Your task to perform on an android device: snooze an email in the gmail app Image 0: 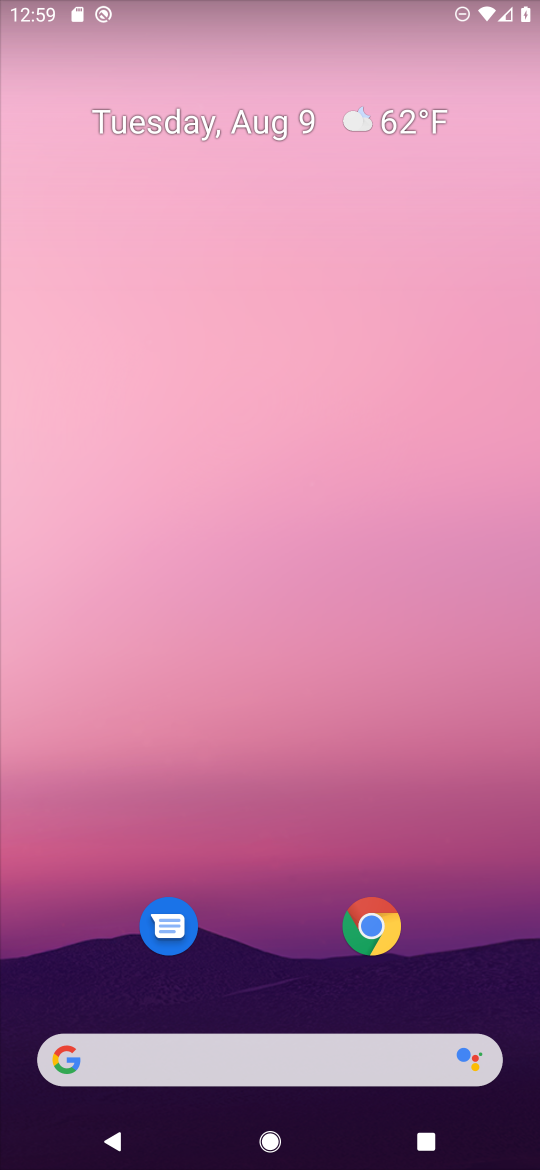
Step 0: drag from (42, 701) to (316, 299)
Your task to perform on an android device: snooze an email in the gmail app Image 1: 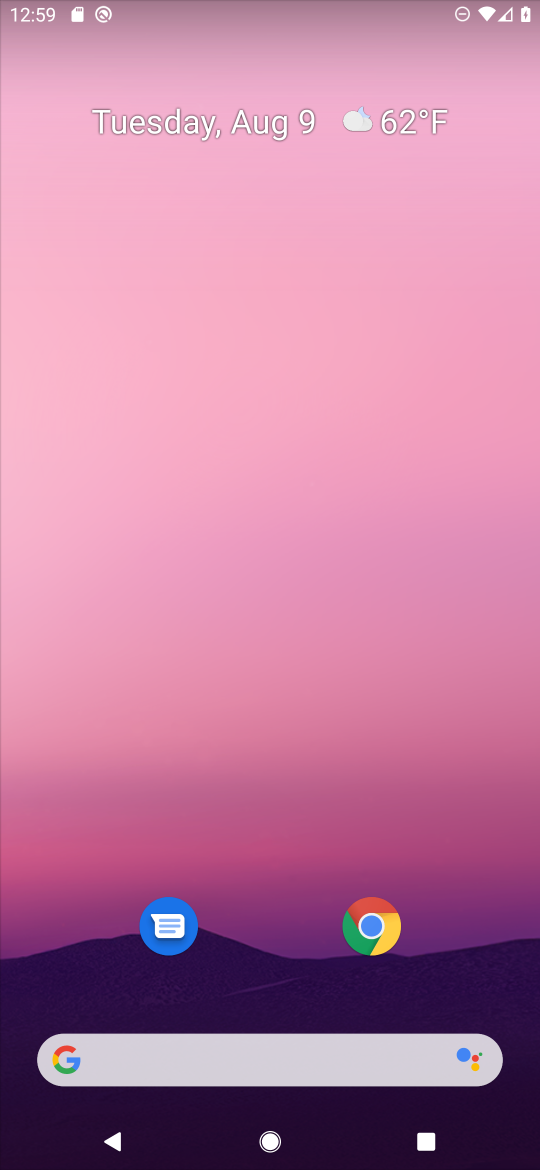
Step 1: drag from (115, 791) to (373, 257)
Your task to perform on an android device: snooze an email in the gmail app Image 2: 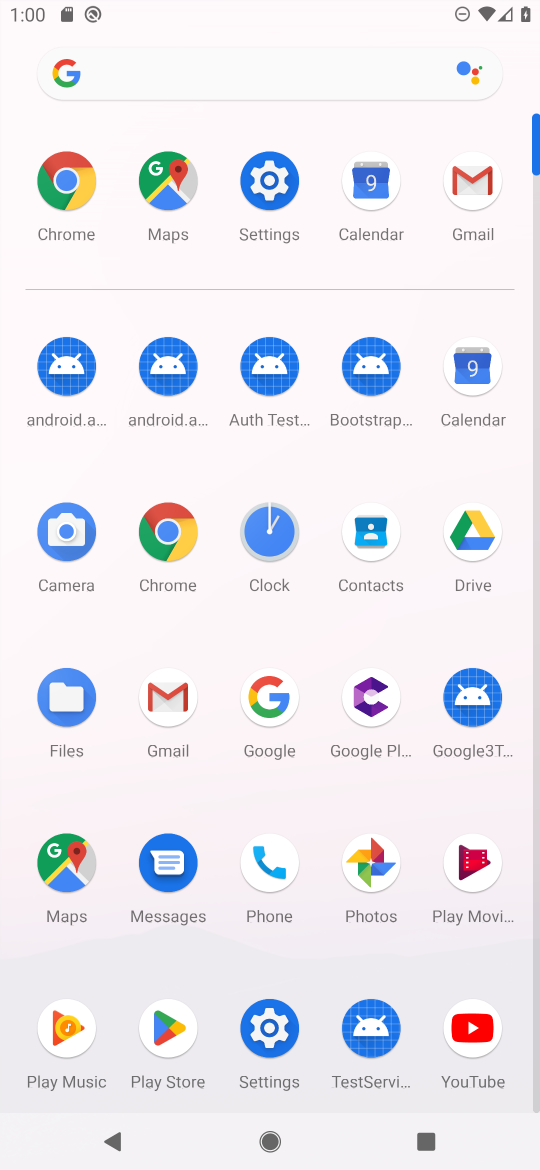
Step 2: click (152, 717)
Your task to perform on an android device: snooze an email in the gmail app Image 3: 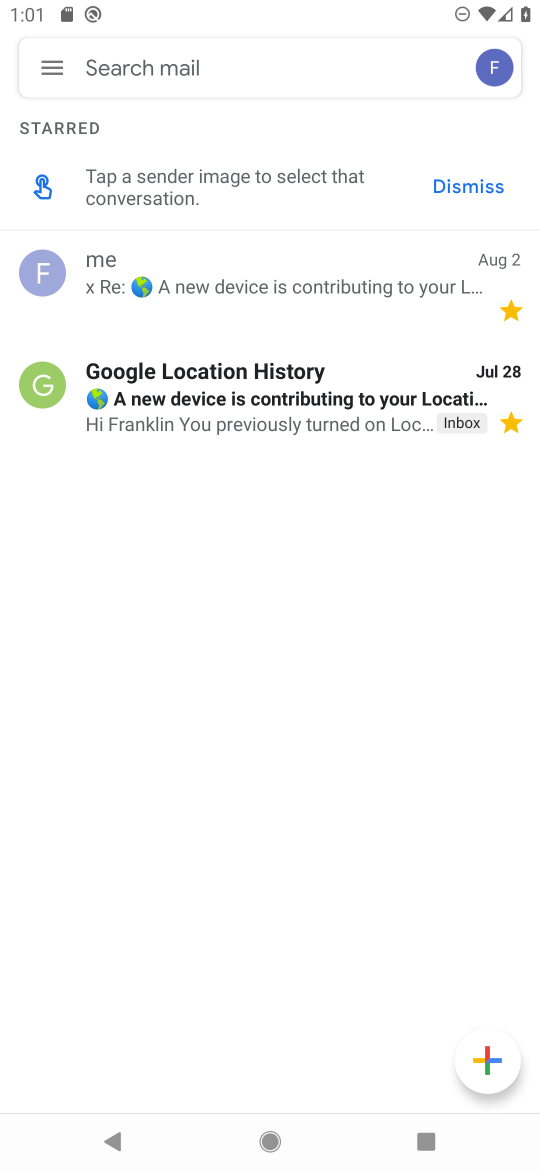
Step 3: task complete